Your task to perform on an android device: stop showing notifications on the lock screen Image 0: 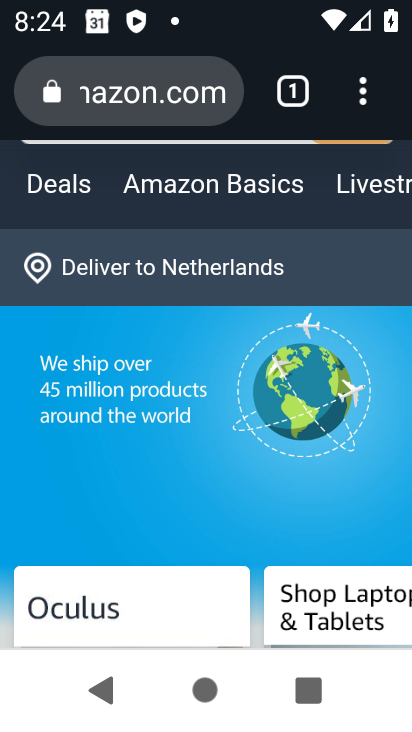
Step 0: press home button
Your task to perform on an android device: stop showing notifications on the lock screen Image 1: 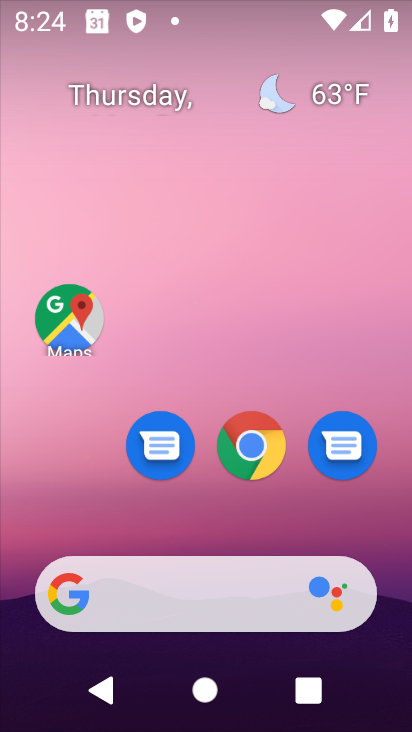
Step 1: drag from (206, 523) to (270, 3)
Your task to perform on an android device: stop showing notifications on the lock screen Image 2: 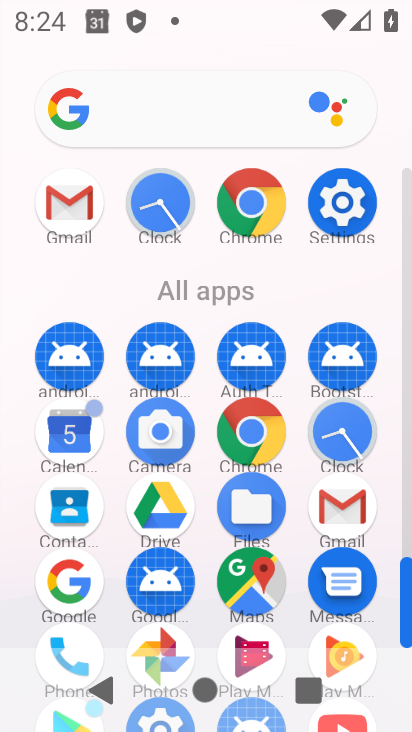
Step 2: click (325, 218)
Your task to perform on an android device: stop showing notifications on the lock screen Image 3: 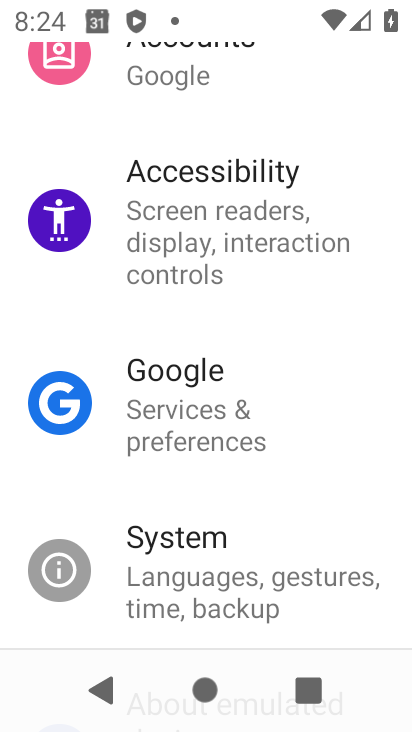
Step 3: drag from (246, 287) to (255, 519)
Your task to perform on an android device: stop showing notifications on the lock screen Image 4: 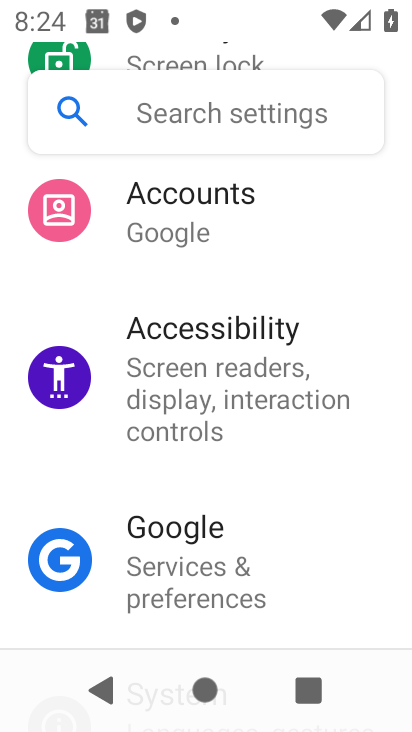
Step 4: drag from (223, 267) to (239, 543)
Your task to perform on an android device: stop showing notifications on the lock screen Image 5: 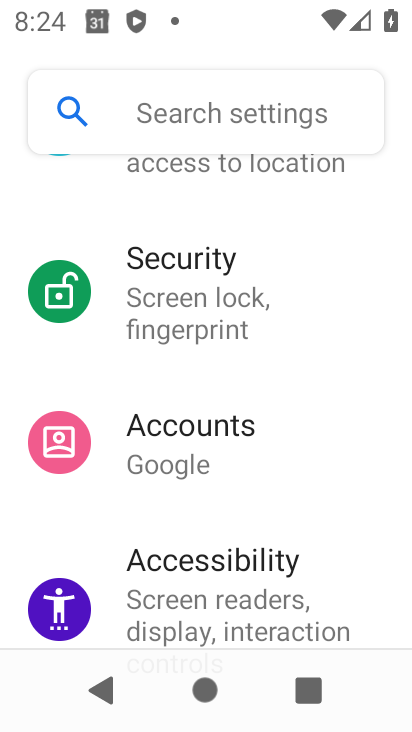
Step 5: drag from (255, 208) to (309, 541)
Your task to perform on an android device: stop showing notifications on the lock screen Image 6: 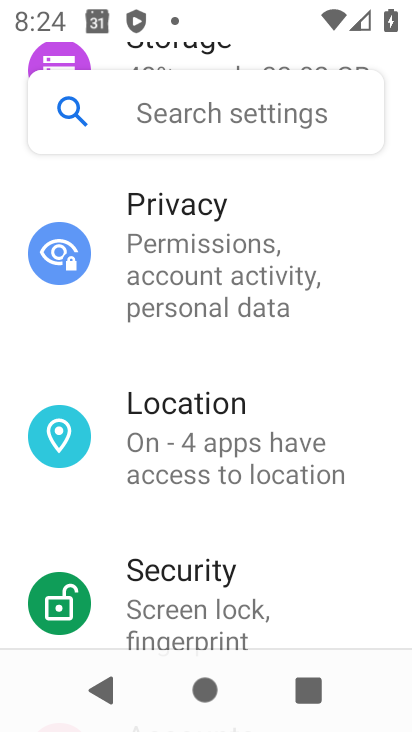
Step 6: drag from (279, 204) to (294, 561)
Your task to perform on an android device: stop showing notifications on the lock screen Image 7: 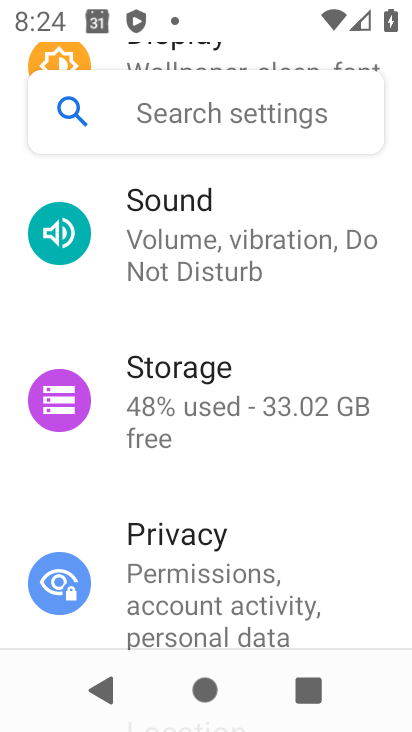
Step 7: drag from (253, 169) to (274, 531)
Your task to perform on an android device: stop showing notifications on the lock screen Image 8: 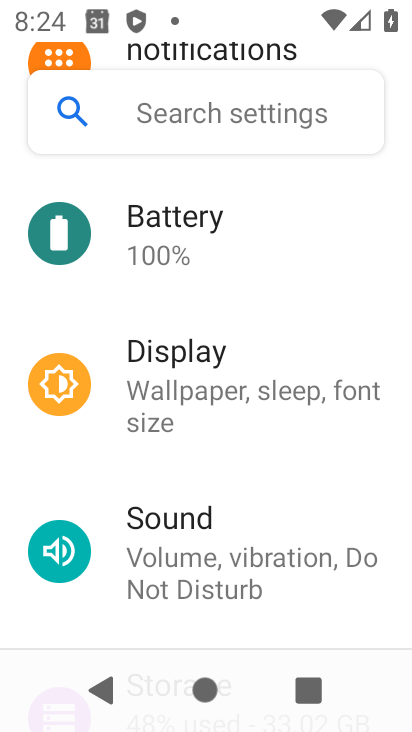
Step 8: drag from (257, 267) to (261, 513)
Your task to perform on an android device: stop showing notifications on the lock screen Image 9: 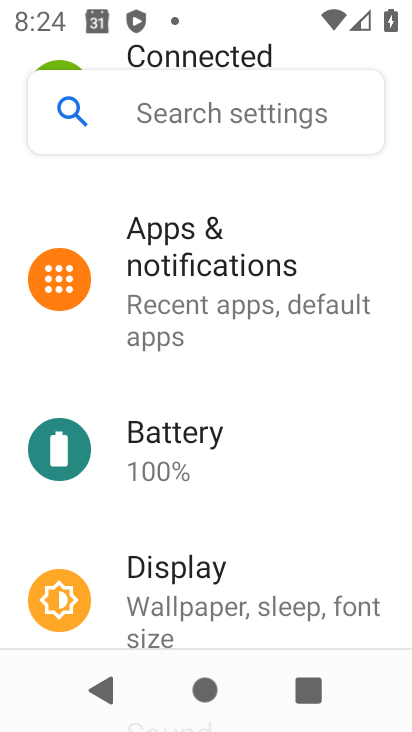
Step 9: click (245, 252)
Your task to perform on an android device: stop showing notifications on the lock screen Image 10: 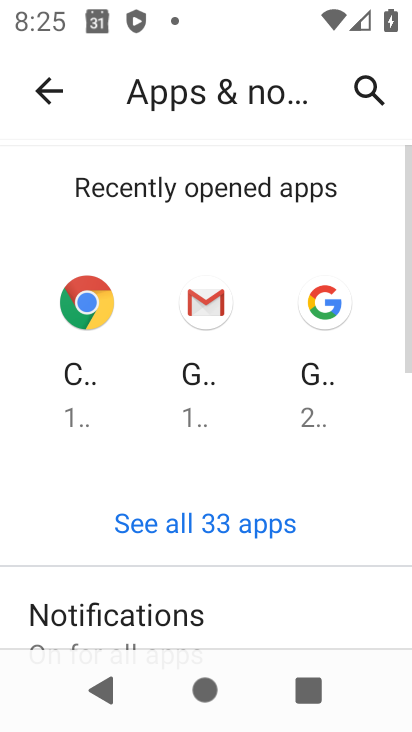
Step 10: click (156, 642)
Your task to perform on an android device: stop showing notifications on the lock screen Image 11: 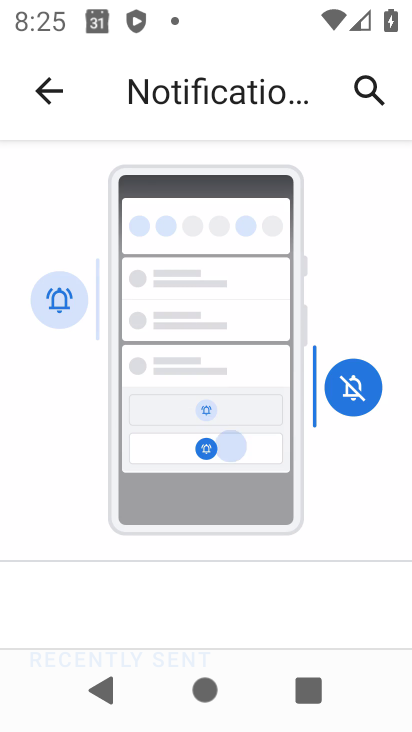
Step 11: drag from (197, 608) to (148, 182)
Your task to perform on an android device: stop showing notifications on the lock screen Image 12: 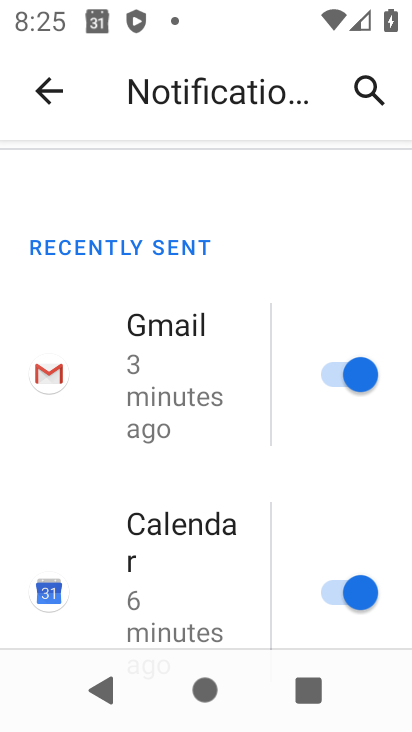
Step 12: drag from (218, 545) to (165, 106)
Your task to perform on an android device: stop showing notifications on the lock screen Image 13: 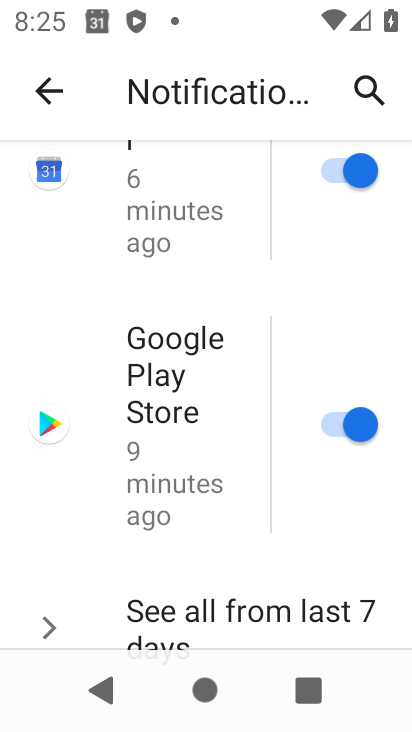
Step 13: drag from (259, 503) to (234, 231)
Your task to perform on an android device: stop showing notifications on the lock screen Image 14: 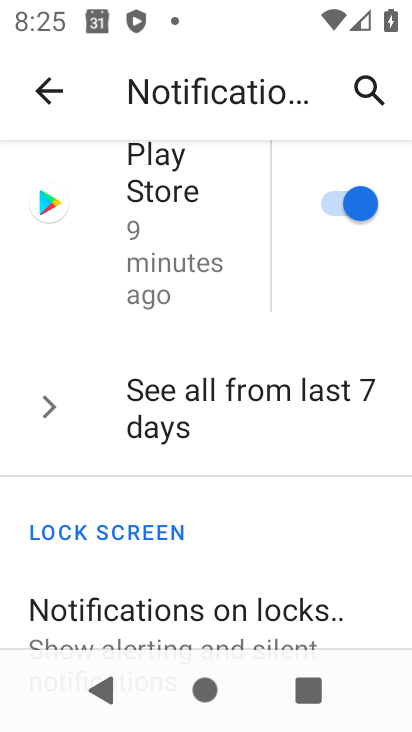
Step 14: click (317, 615)
Your task to perform on an android device: stop showing notifications on the lock screen Image 15: 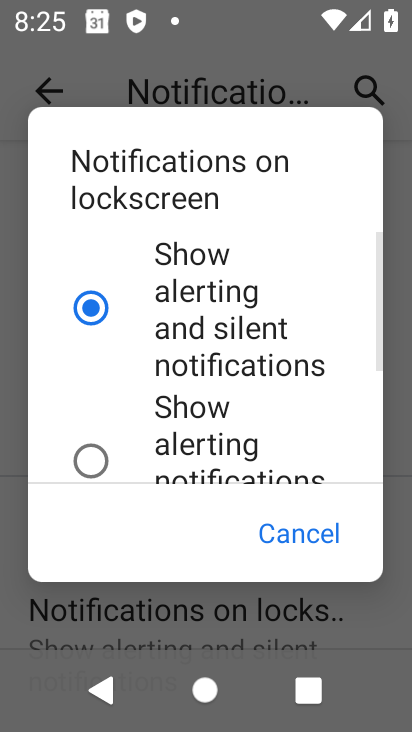
Step 15: drag from (234, 466) to (190, 183)
Your task to perform on an android device: stop showing notifications on the lock screen Image 16: 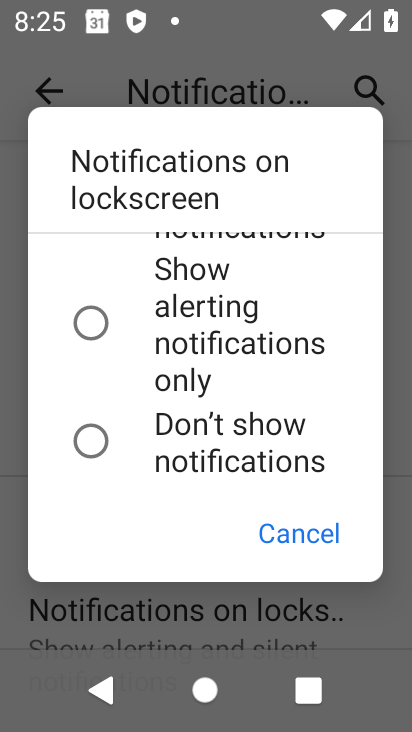
Step 16: click (100, 438)
Your task to perform on an android device: stop showing notifications on the lock screen Image 17: 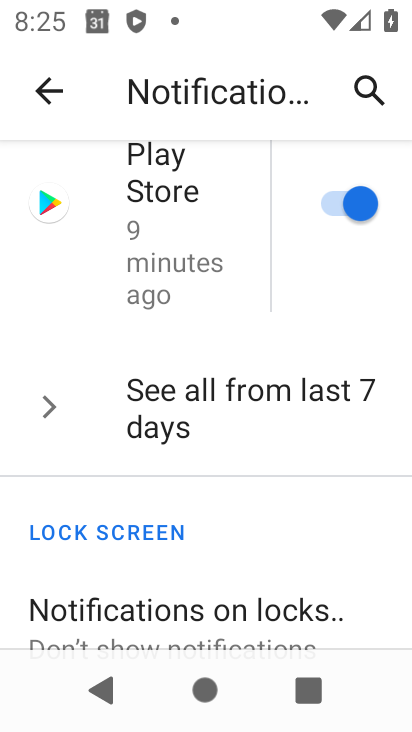
Step 17: task complete